Your task to perform on an android device: snooze an email in the gmail app Image 0: 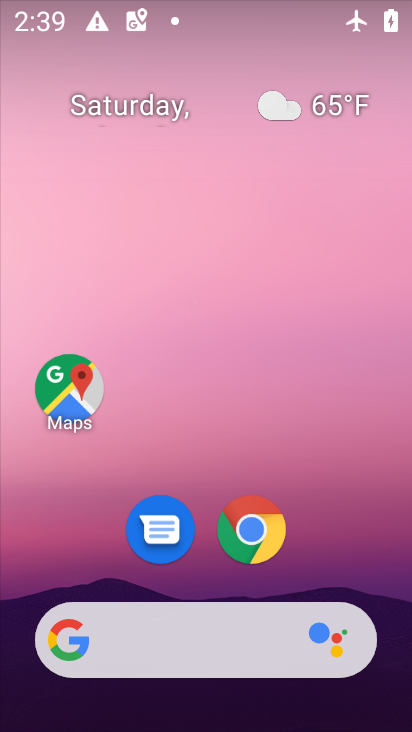
Step 0: drag from (373, 561) to (298, 148)
Your task to perform on an android device: snooze an email in the gmail app Image 1: 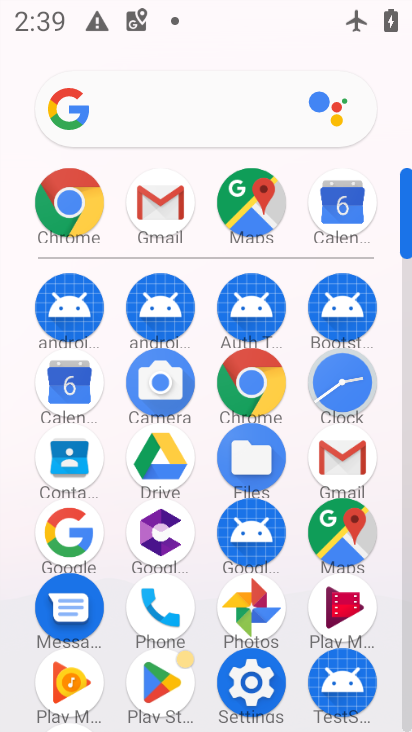
Step 1: click (156, 207)
Your task to perform on an android device: snooze an email in the gmail app Image 2: 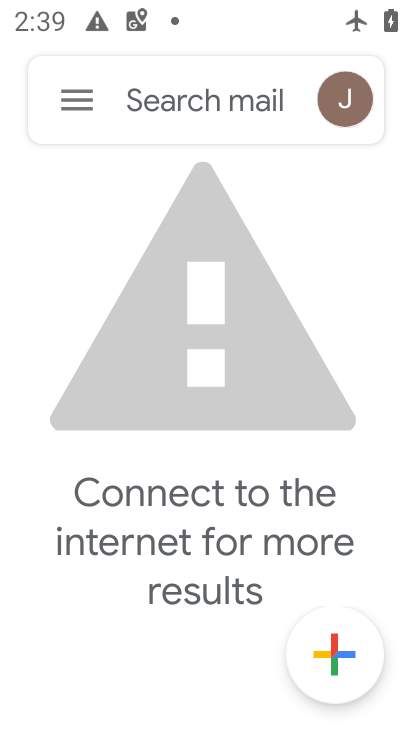
Step 2: click (78, 92)
Your task to perform on an android device: snooze an email in the gmail app Image 3: 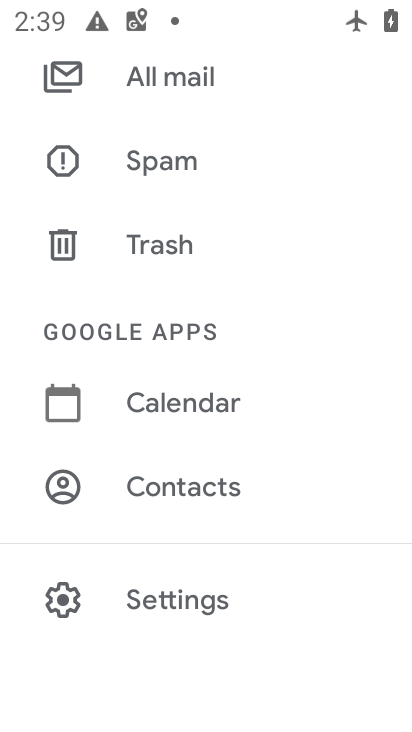
Step 3: drag from (184, 112) to (359, 706)
Your task to perform on an android device: snooze an email in the gmail app Image 4: 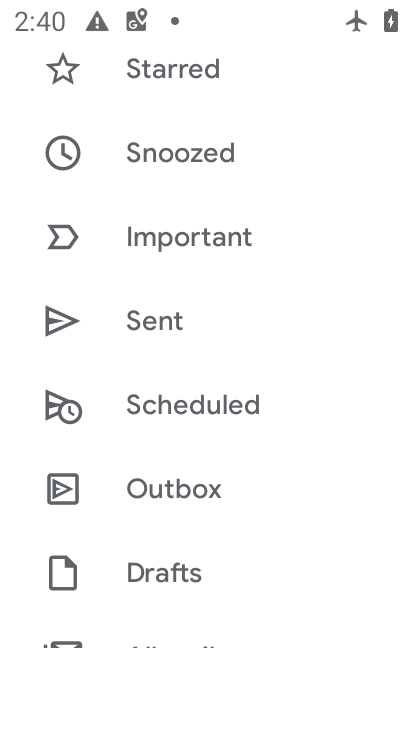
Step 4: drag from (229, 107) to (403, 550)
Your task to perform on an android device: snooze an email in the gmail app Image 5: 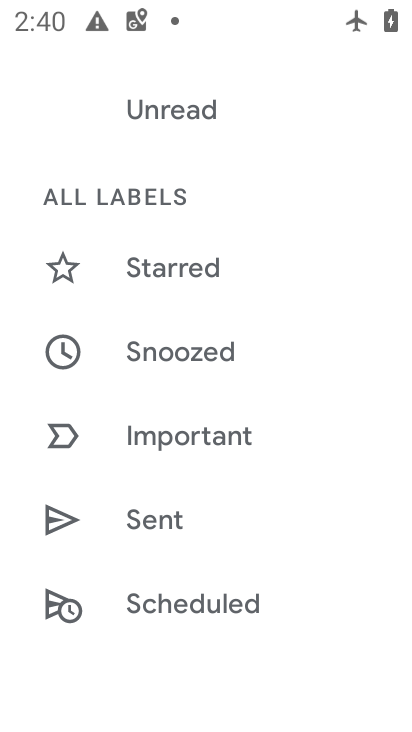
Step 5: drag from (312, 589) to (244, 116)
Your task to perform on an android device: snooze an email in the gmail app Image 6: 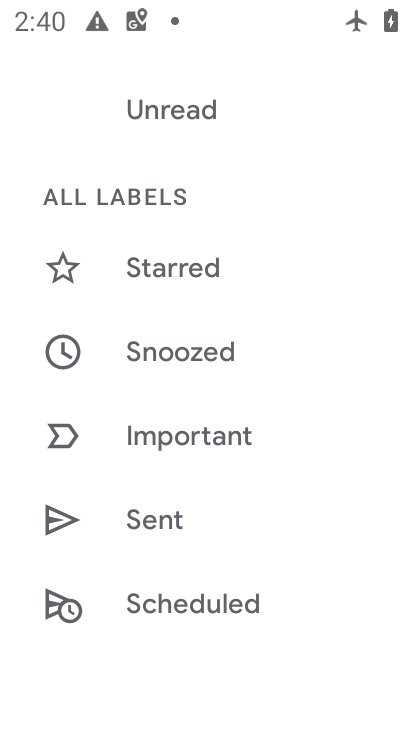
Step 6: drag from (210, 670) to (178, 6)
Your task to perform on an android device: snooze an email in the gmail app Image 7: 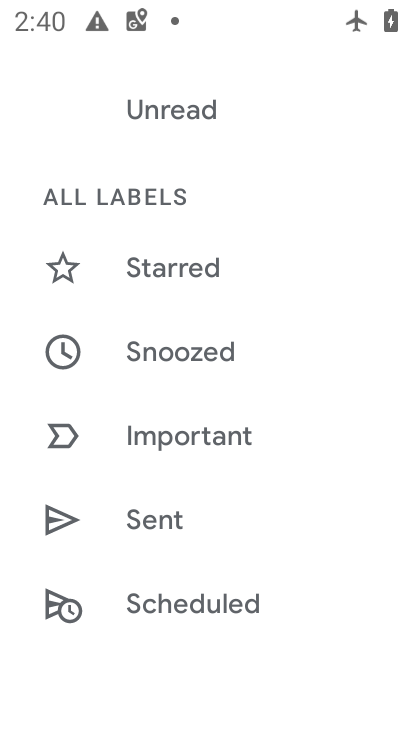
Step 7: drag from (211, 548) to (212, 41)
Your task to perform on an android device: snooze an email in the gmail app Image 8: 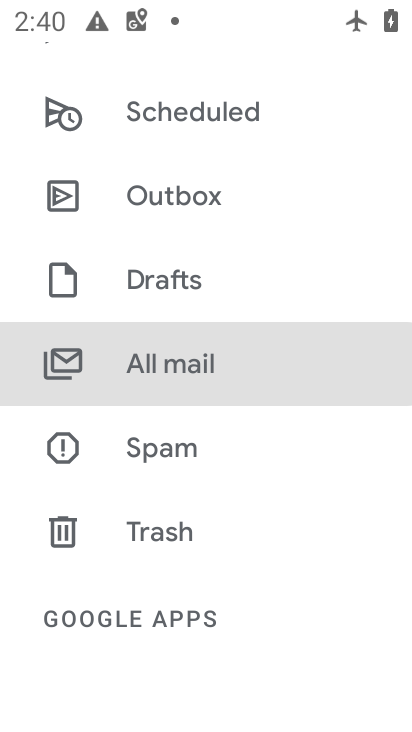
Step 8: click (226, 350)
Your task to perform on an android device: snooze an email in the gmail app Image 9: 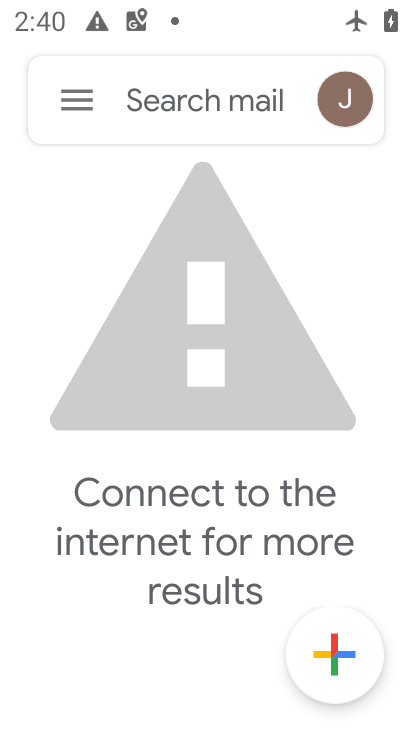
Step 9: task complete